Your task to perform on an android device: Open Google Chrome Image 0: 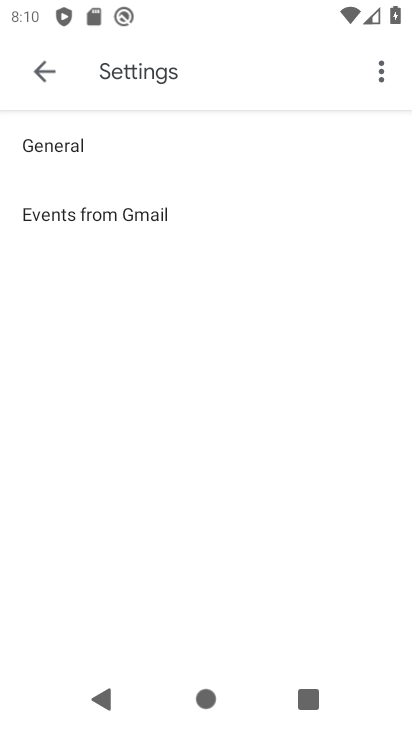
Step 0: press home button
Your task to perform on an android device: Open Google Chrome Image 1: 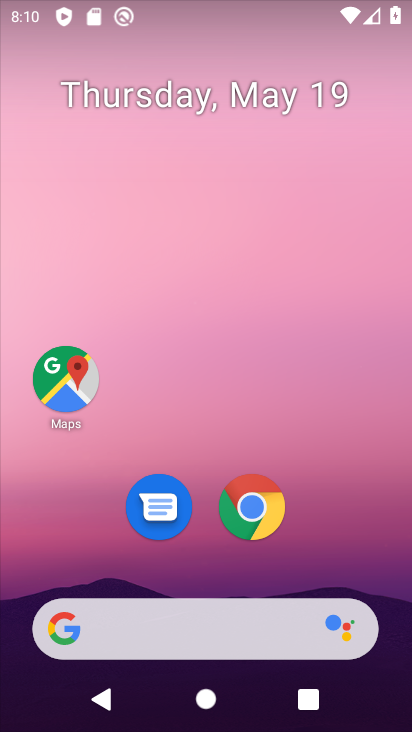
Step 1: click (262, 518)
Your task to perform on an android device: Open Google Chrome Image 2: 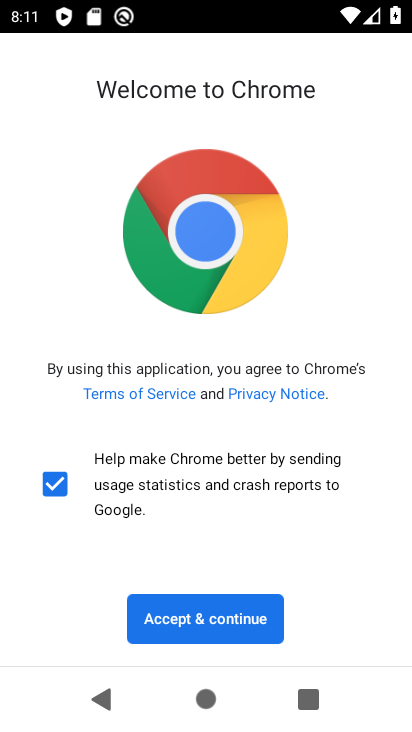
Step 2: click (217, 613)
Your task to perform on an android device: Open Google Chrome Image 3: 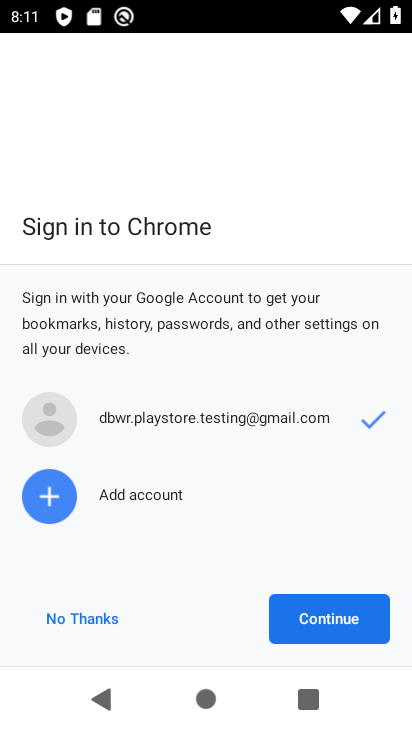
Step 3: click (339, 613)
Your task to perform on an android device: Open Google Chrome Image 4: 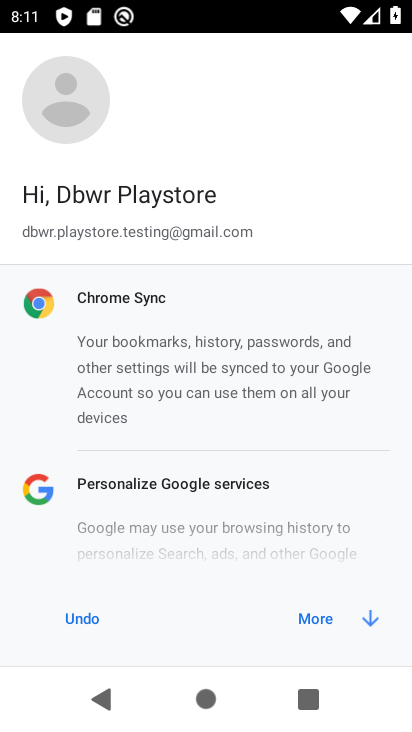
Step 4: click (307, 618)
Your task to perform on an android device: Open Google Chrome Image 5: 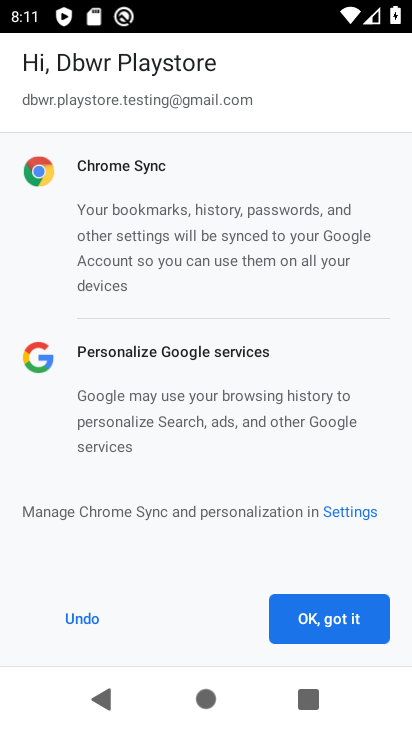
Step 5: click (307, 618)
Your task to perform on an android device: Open Google Chrome Image 6: 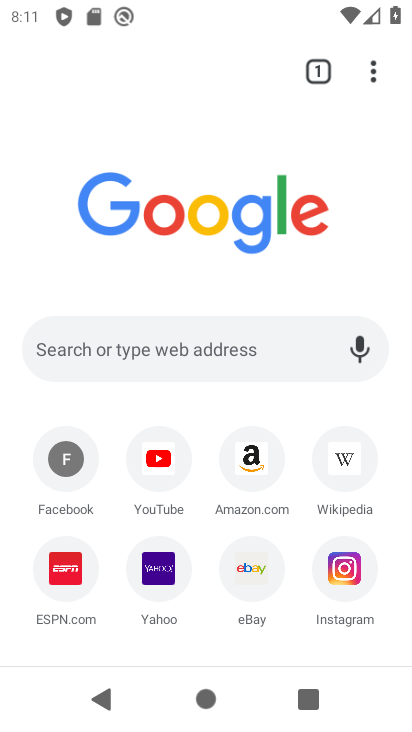
Step 6: task complete